Your task to perform on an android device: toggle javascript in the chrome app Image 0: 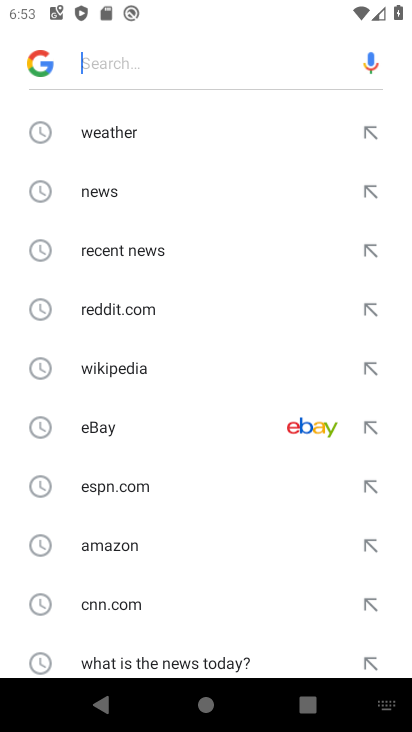
Step 0: press home button
Your task to perform on an android device: toggle javascript in the chrome app Image 1: 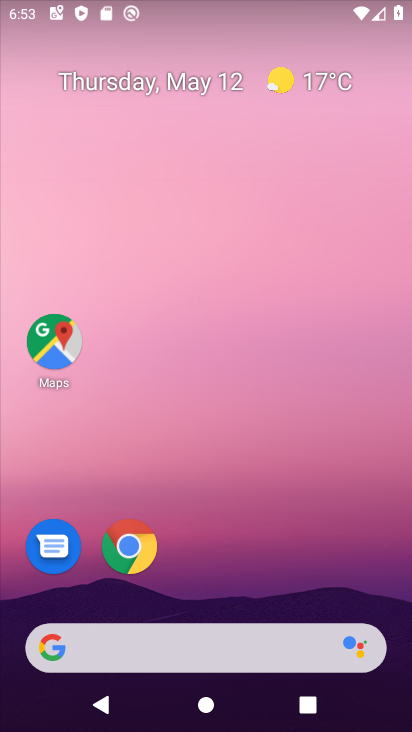
Step 1: click (130, 543)
Your task to perform on an android device: toggle javascript in the chrome app Image 2: 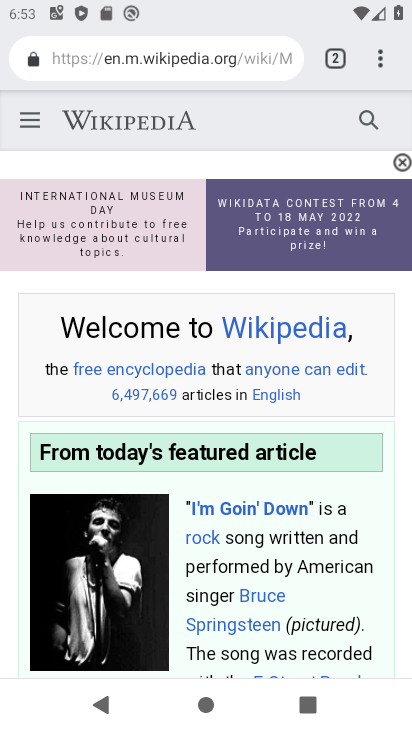
Step 2: click (378, 56)
Your task to perform on an android device: toggle javascript in the chrome app Image 3: 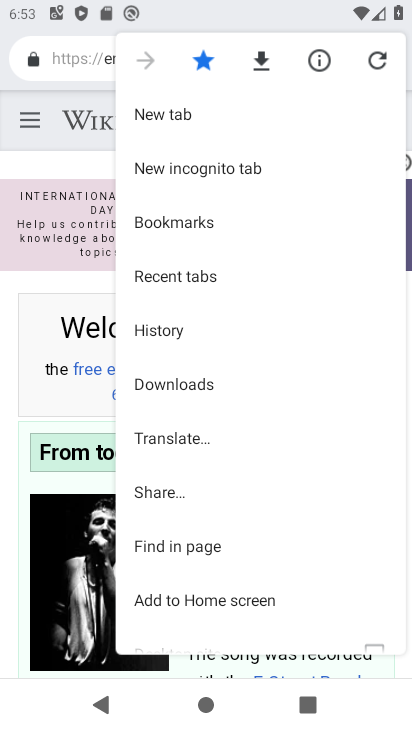
Step 3: drag from (320, 548) to (224, 158)
Your task to perform on an android device: toggle javascript in the chrome app Image 4: 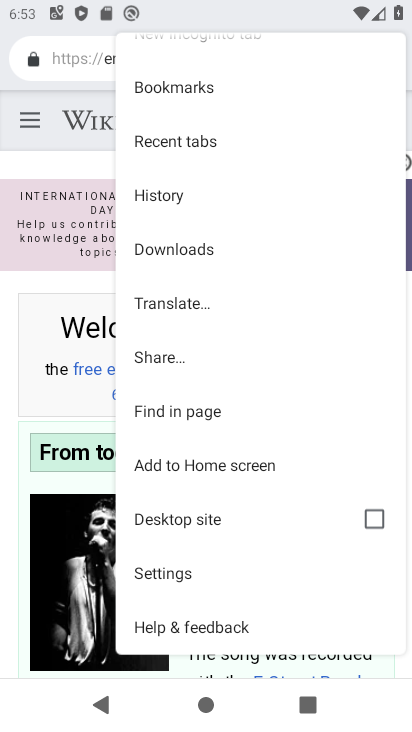
Step 4: click (168, 570)
Your task to perform on an android device: toggle javascript in the chrome app Image 5: 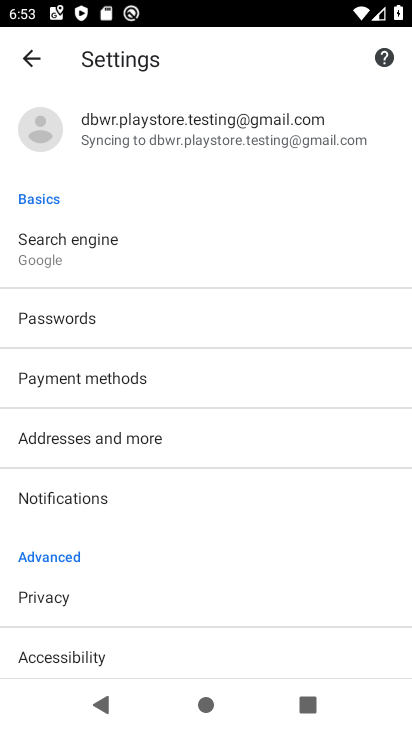
Step 5: drag from (171, 550) to (154, 267)
Your task to perform on an android device: toggle javascript in the chrome app Image 6: 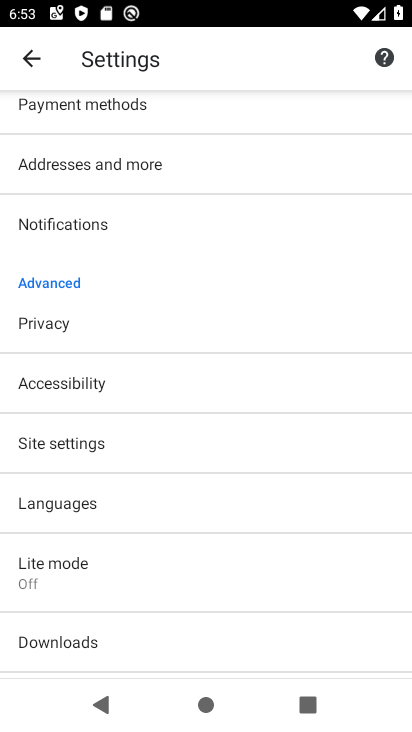
Step 6: click (68, 438)
Your task to perform on an android device: toggle javascript in the chrome app Image 7: 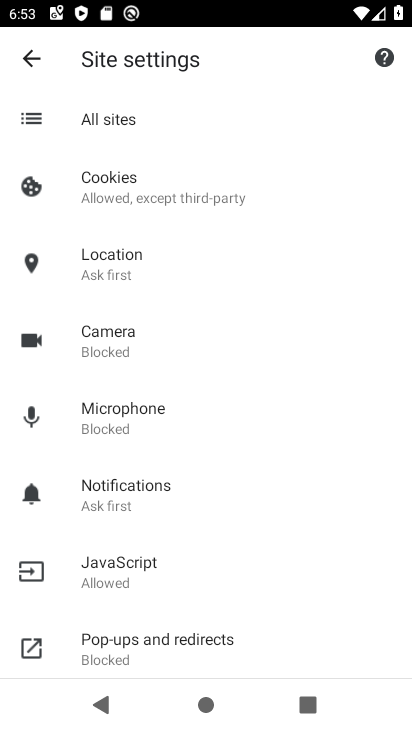
Step 7: drag from (231, 526) to (223, 333)
Your task to perform on an android device: toggle javascript in the chrome app Image 8: 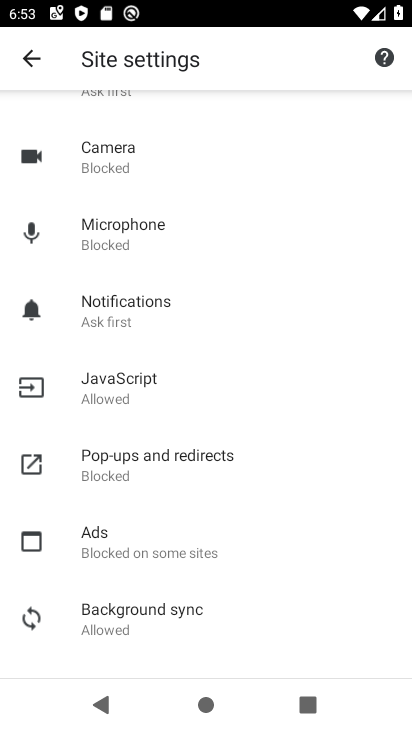
Step 8: click (126, 373)
Your task to perform on an android device: toggle javascript in the chrome app Image 9: 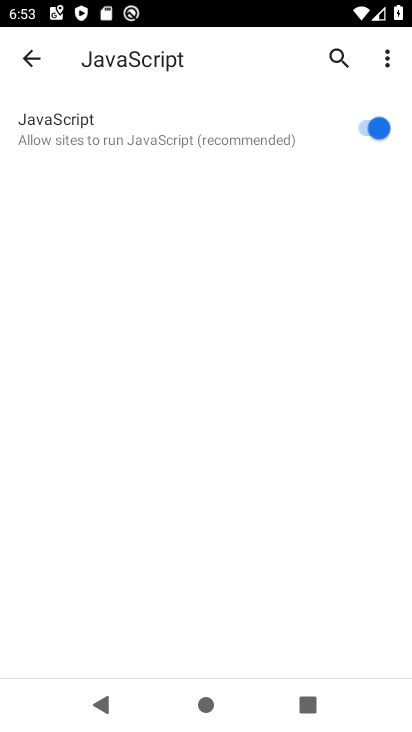
Step 9: click (369, 128)
Your task to perform on an android device: toggle javascript in the chrome app Image 10: 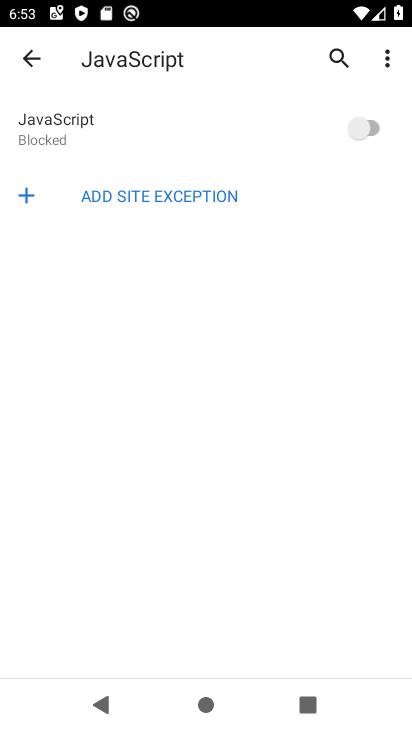
Step 10: task complete